Your task to perform on an android device: star an email in the gmail app Image 0: 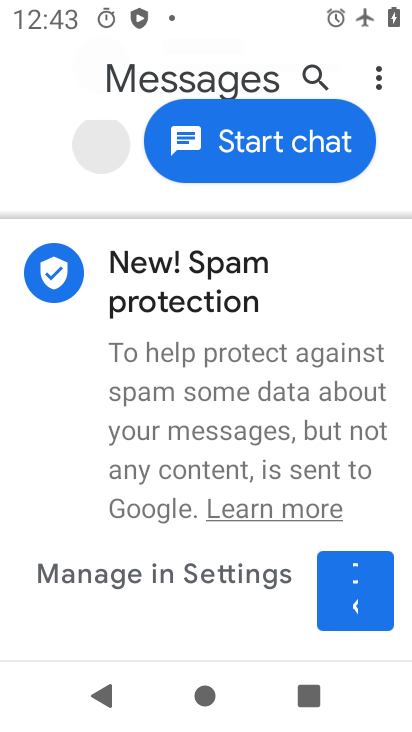
Step 0: press home button
Your task to perform on an android device: star an email in the gmail app Image 1: 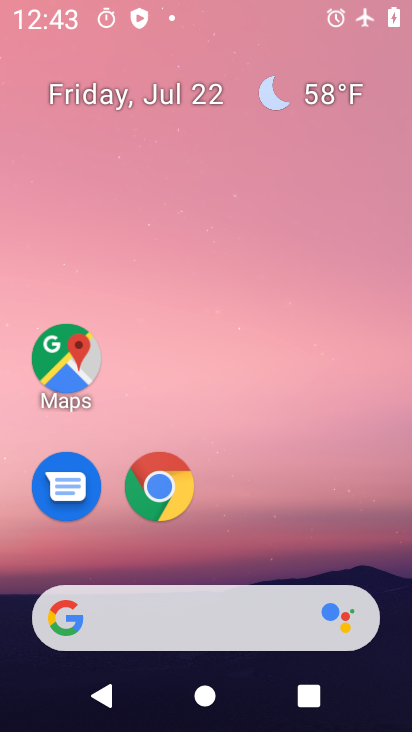
Step 1: drag from (372, 549) to (365, 156)
Your task to perform on an android device: star an email in the gmail app Image 2: 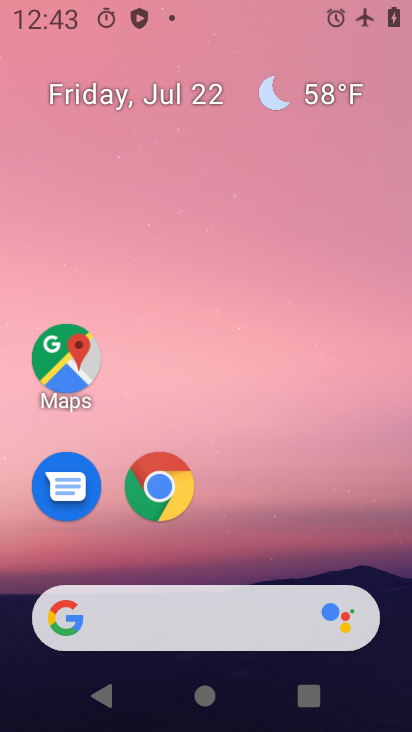
Step 2: click (352, 421)
Your task to perform on an android device: star an email in the gmail app Image 3: 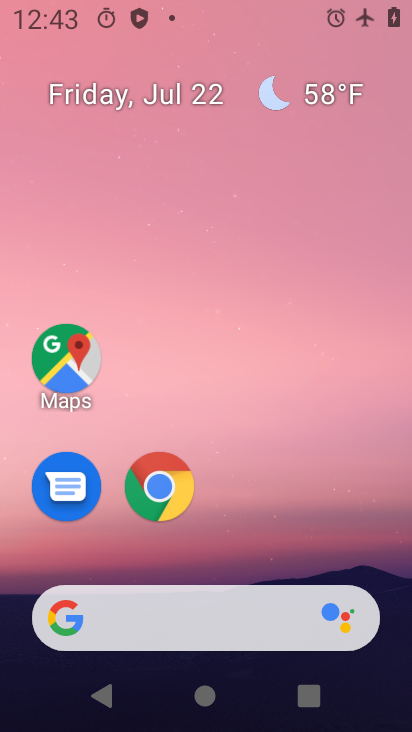
Step 3: drag from (358, 466) to (373, 164)
Your task to perform on an android device: star an email in the gmail app Image 4: 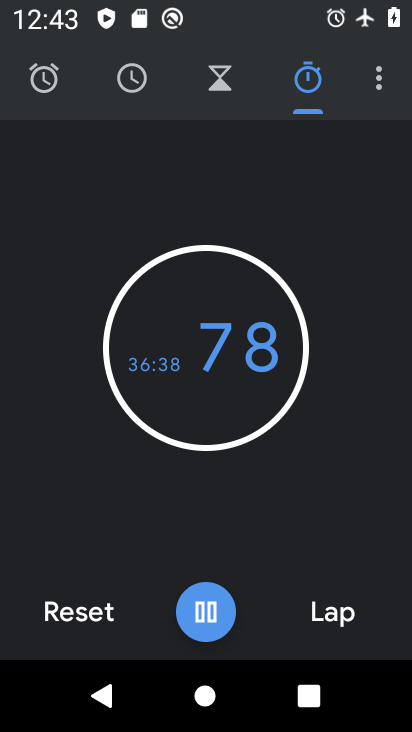
Step 4: press home button
Your task to perform on an android device: star an email in the gmail app Image 5: 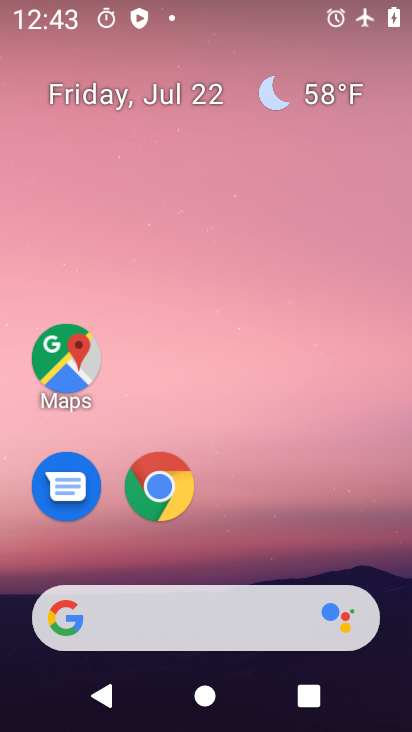
Step 5: drag from (366, 528) to (347, 153)
Your task to perform on an android device: star an email in the gmail app Image 6: 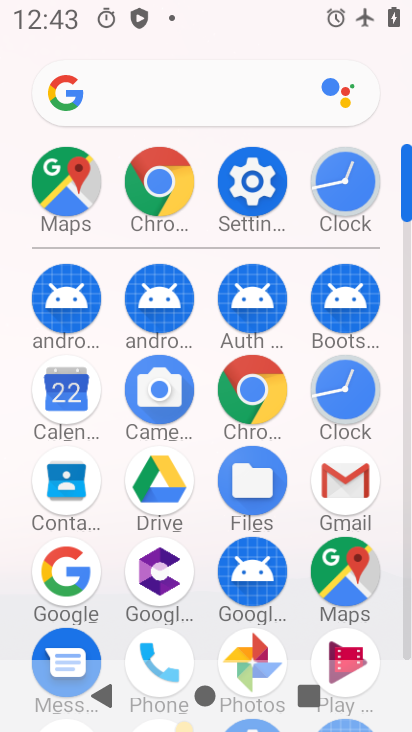
Step 6: click (338, 474)
Your task to perform on an android device: star an email in the gmail app Image 7: 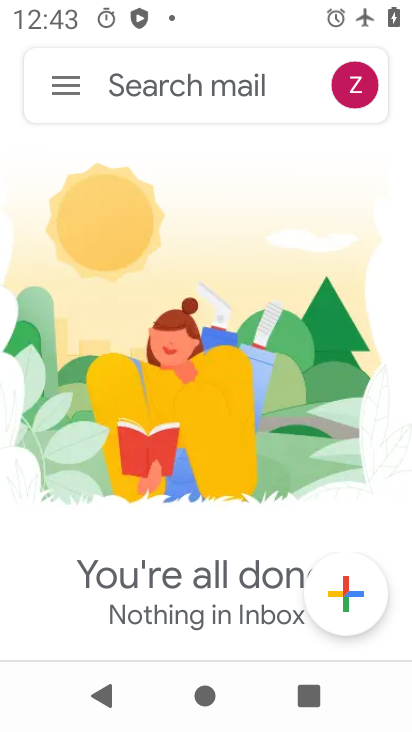
Step 7: click (66, 94)
Your task to perform on an android device: star an email in the gmail app Image 8: 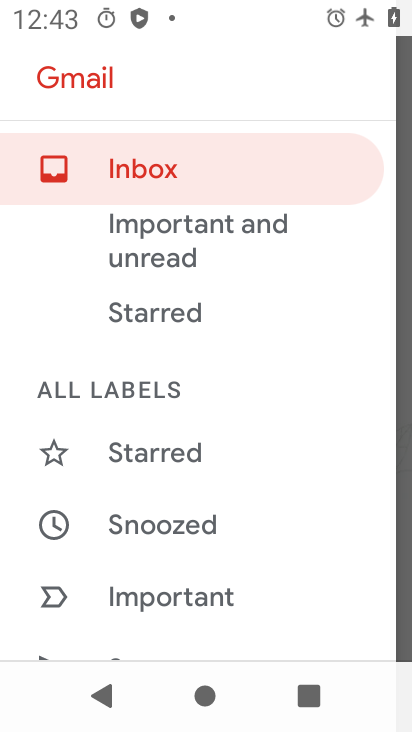
Step 8: drag from (304, 480) to (288, 373)
Your task to perform on an android device: star an email in the gmail app Image 9: 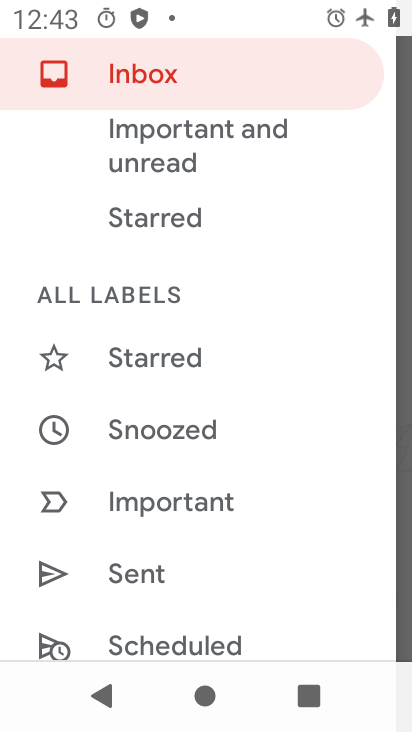
Step 9: drag from (297, 421) to (292, 279)
Your task to perform on an android device: star an email in the gmail app Image 10: 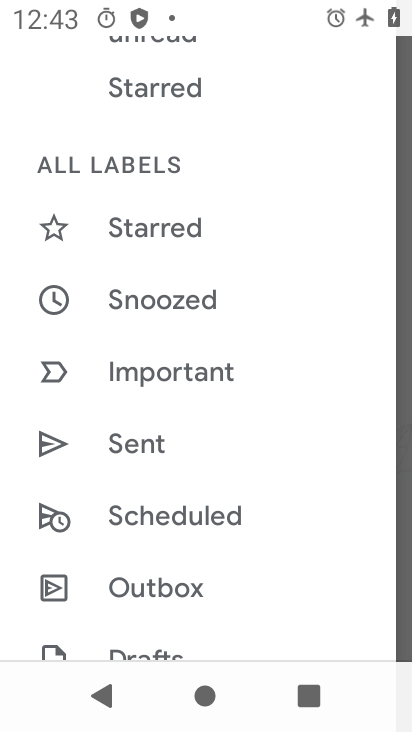
Step 10: drag from (281, 414) to (293, 315)
Your task to perform on an android device: star an email in the gmail app Image 11: 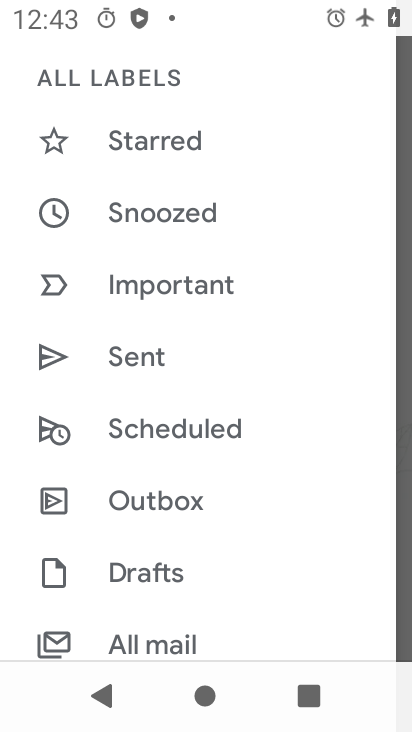
Step 11: drag from (287, 472) to (289, 370)
Your task to perform on an android device: star an email in the gmail app Image 12: 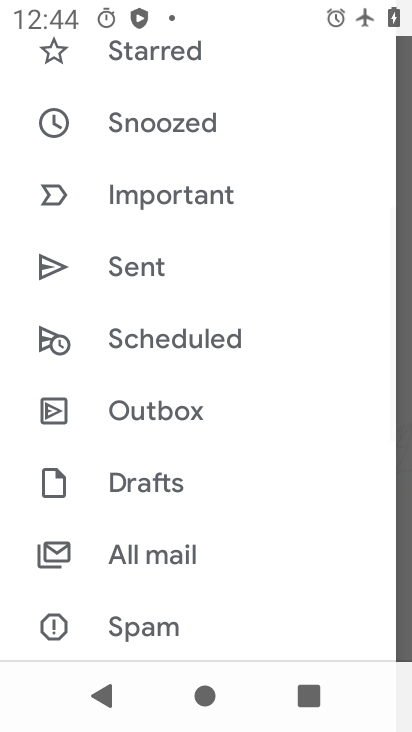
Step 12: click (252, 551)
Your task to perform on an android device: star an email in the gmail app Image 13: 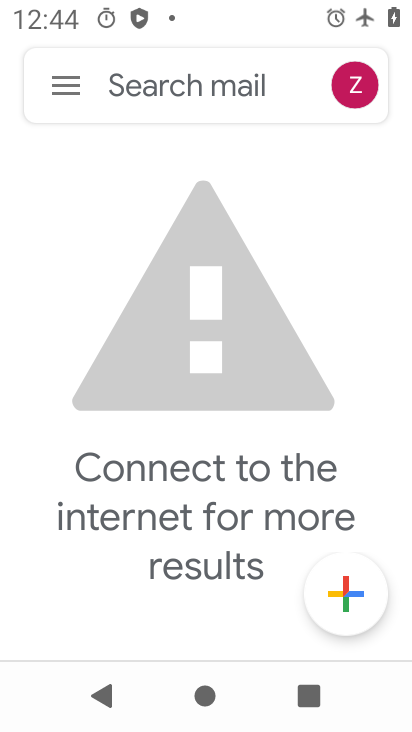
Step 13: task complete